Your task to perform on an android device: Search for the new nike air max shoes on Nike. Image 0: 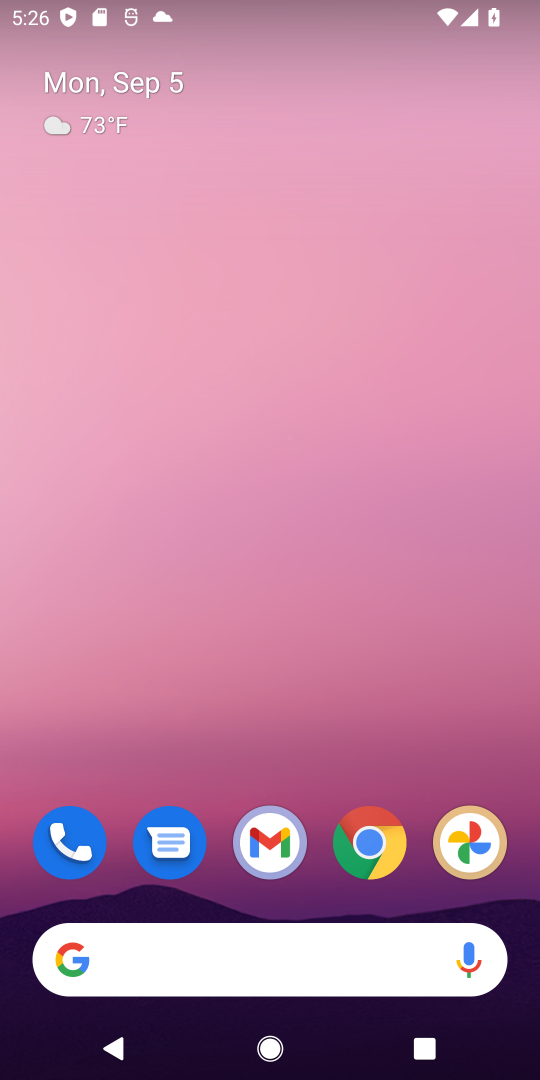
Step 0: click (368, 842)
Your task to perform on an android device: Search for the new nike air max shoes on Nike. Image 1: 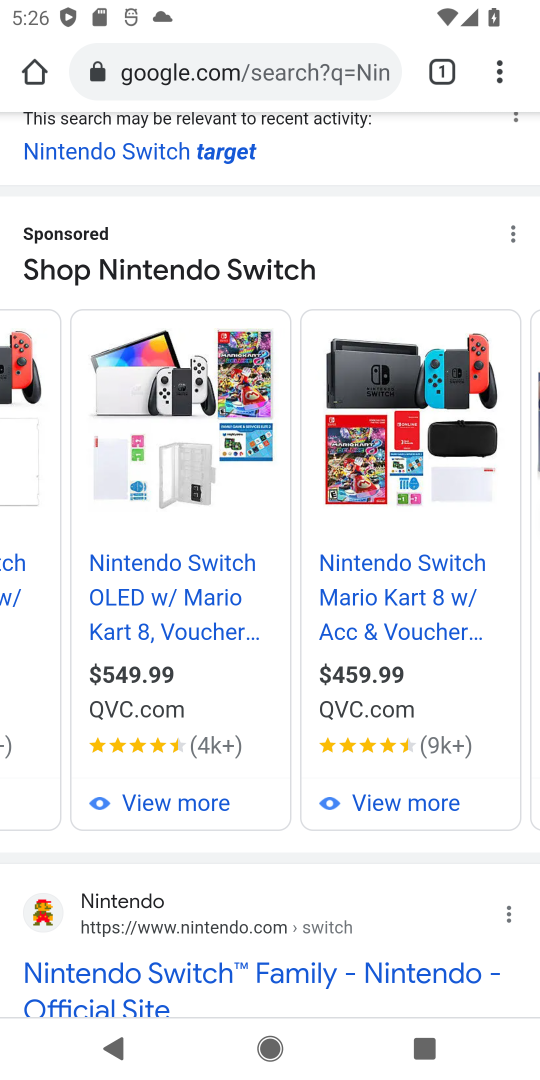
Step 1: click (301, 75)
Your task to perform on an android device: Search for the new nike air max shoes on Nike. Image 2: 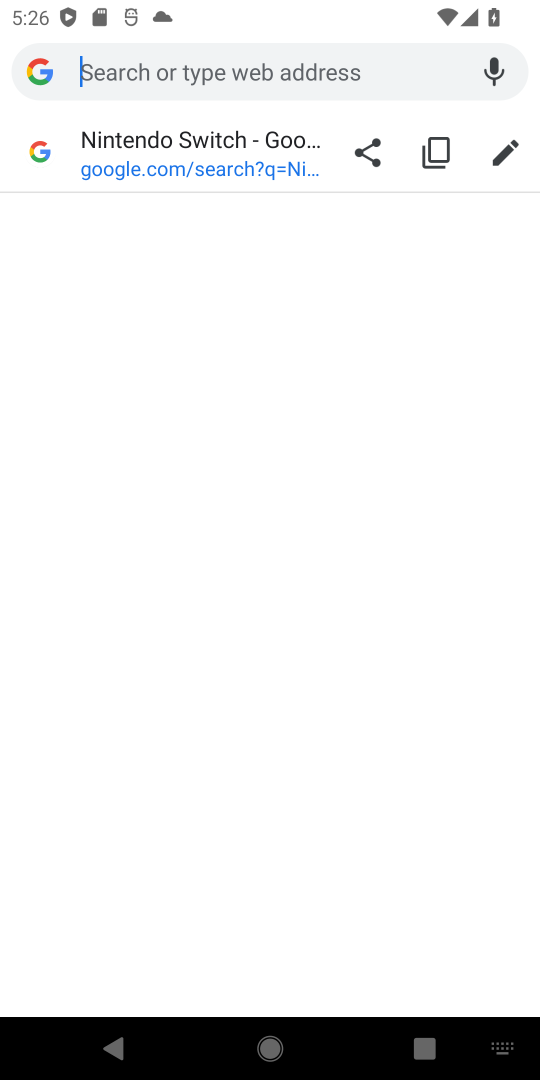
Step 2: type "Nike"
Your task to perform on an android device: Search for the new nike air max shoes on Nike. Image 3: 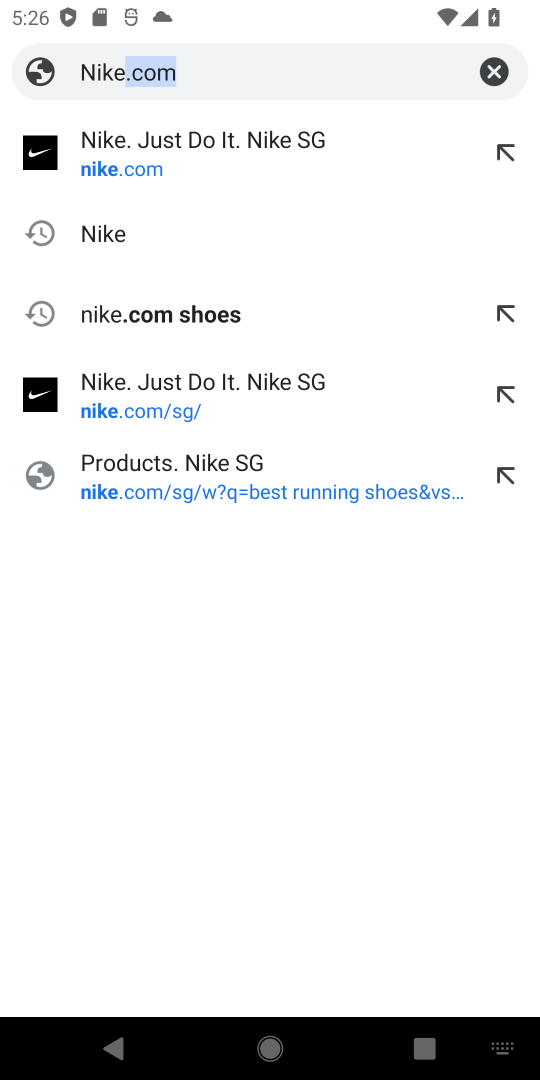
Step 3: click (100, 241)
Your task to perform on an android device: Search for the new nike air max shoes on Nike. Image 4: 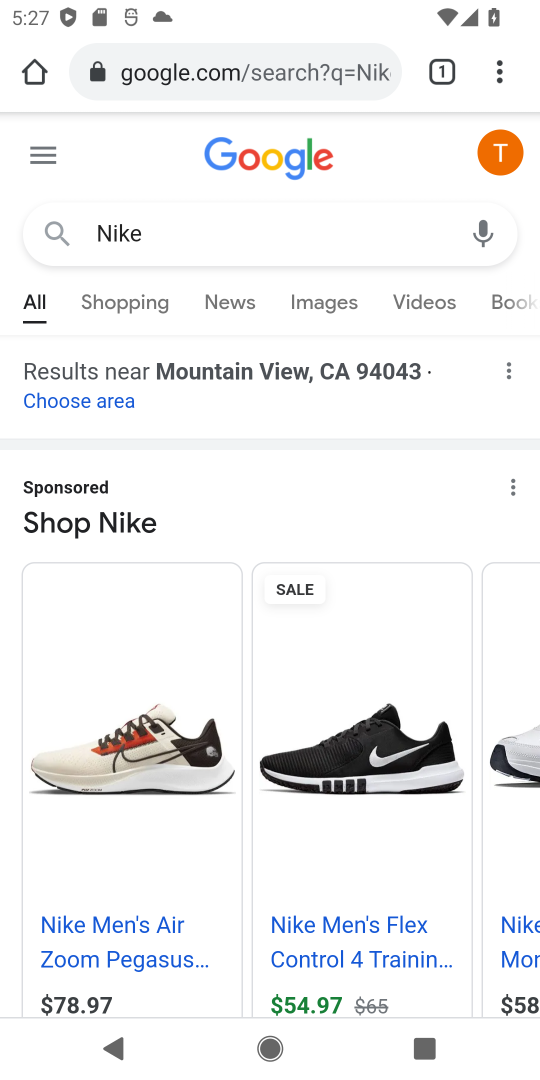
Step 4: drag from (265, 523) to (336, 283)
Your task to perform on an android device: Search for the new nike air max shoes on Nike. Image 5: 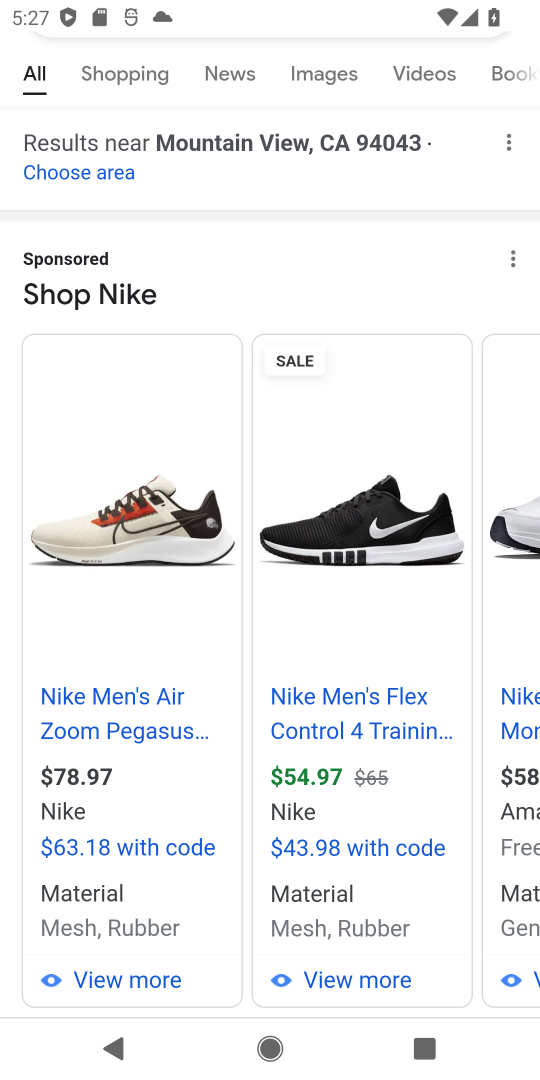
Step 5: drag from (250, 314) to (318, 98)
Your task to perform on an android device: Search for the new nike air max shoes on Nike. Image 6: 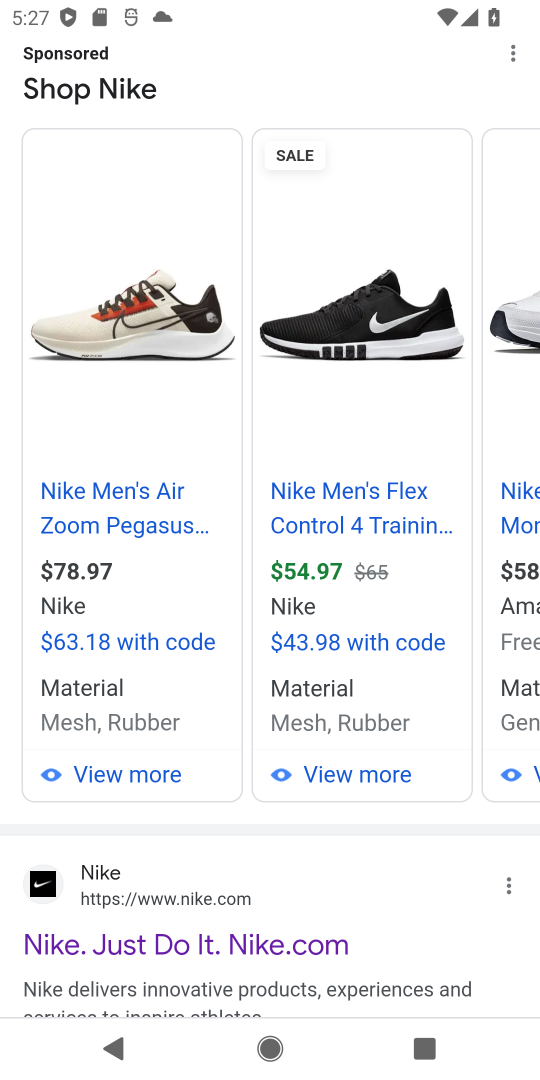
Step 6: click (278, 967)
Your task to perform on an android device: Search for the new nike air max shoes on Nike. Image 7: 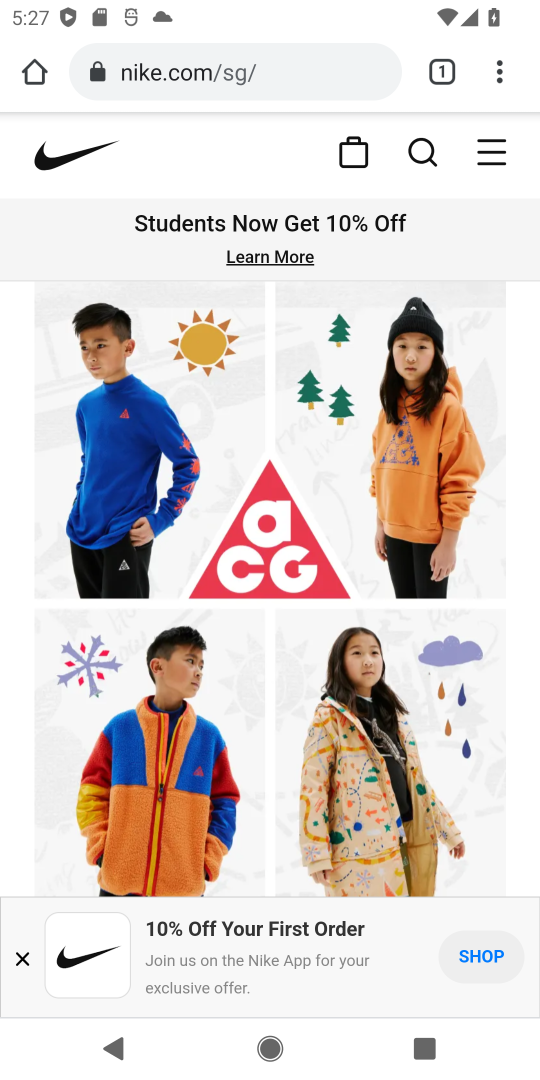
Step 7: click (424, 152)
Your task to perform on an android device: Search for the new nike air max shoes on Nike. Image 8: 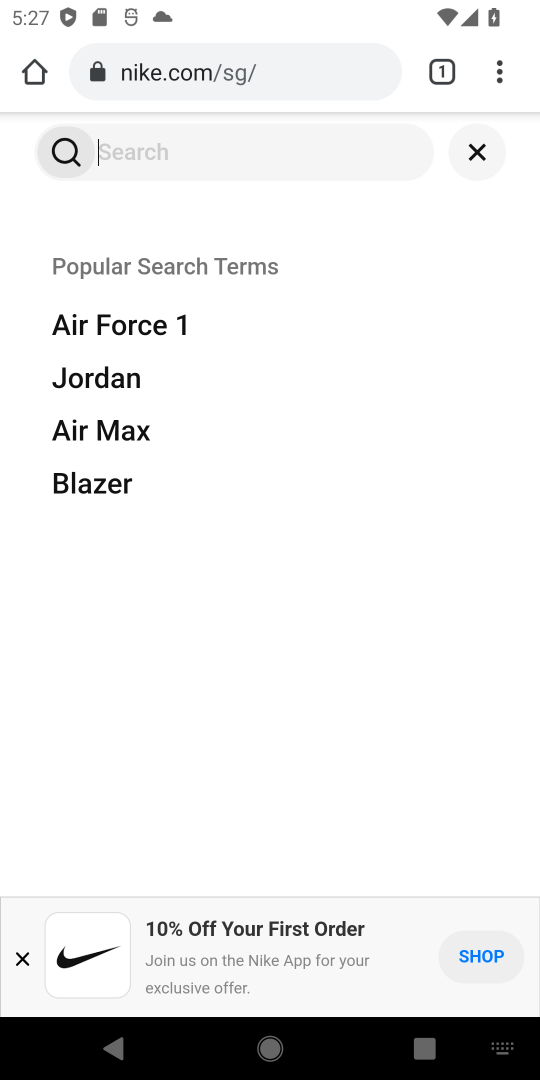
Step 8: click (277, 146)
Your task to perform on an android device: Search for the new nike air max shoes on Nike. Image 9: 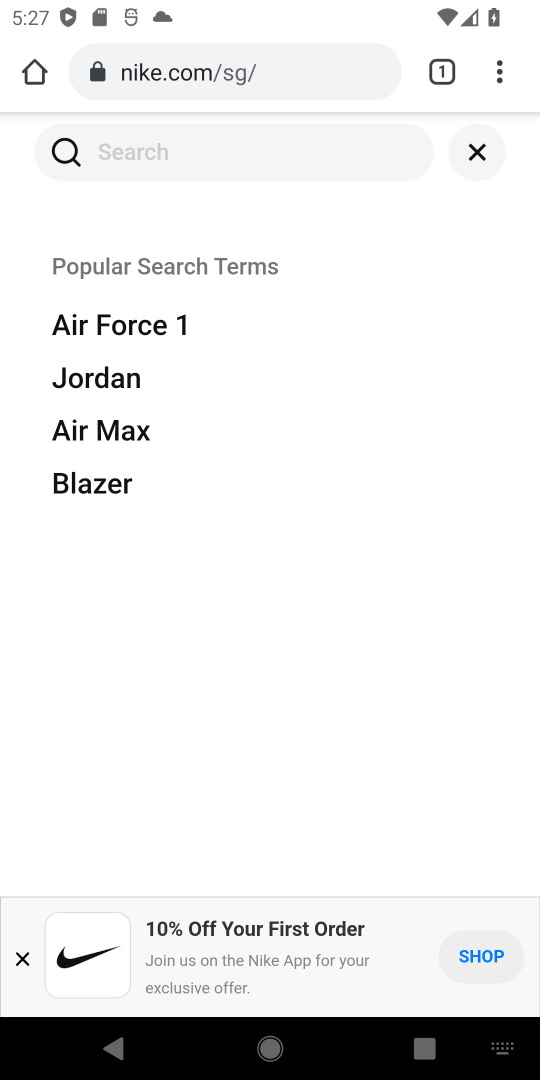
Step 9: type "new nike air max shoes"
Your task to perform on an android device: Search for the new nike air max shoes on Nike. Image 10: 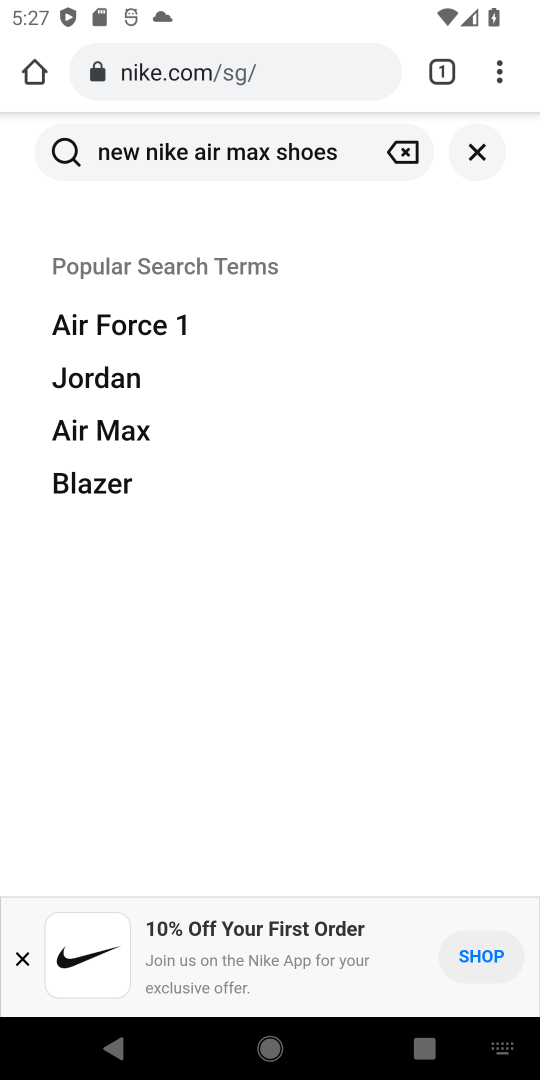
Step 10: click (61, 160)
Your task to perform on an android device: Search for the new nike air max shoes on Nike. Image 11: 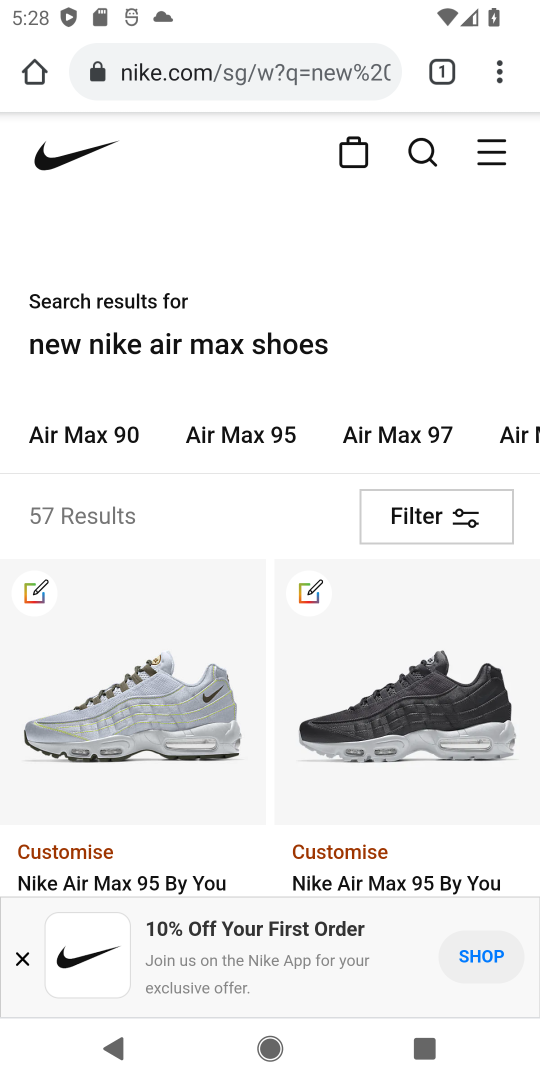
Step 11: drag from (199, 525) to (297, 262)
Your task to perform on an android device: Search for the new nike air max shoes on Nike. Image 12: 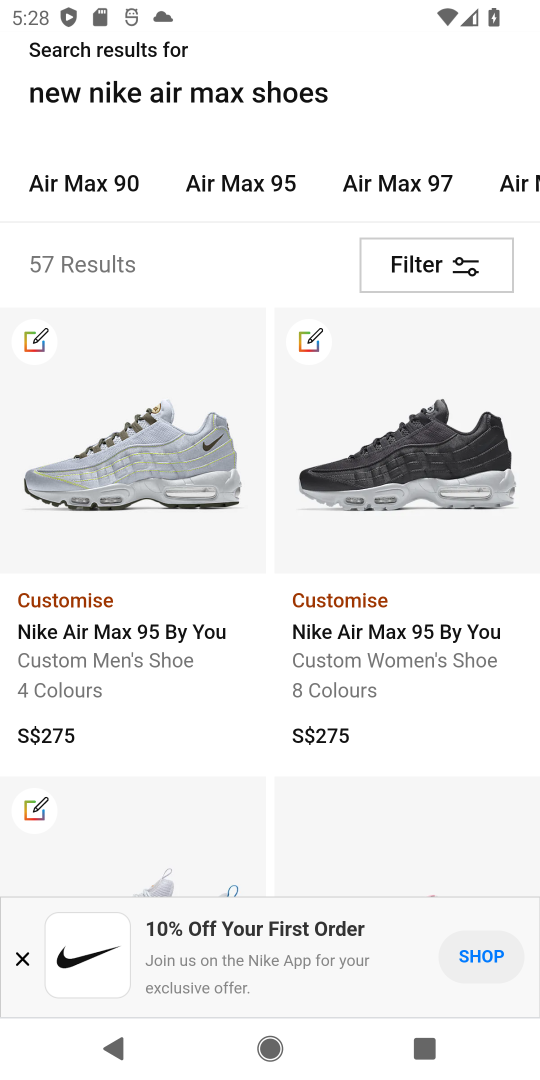
Step 12: drag from (240, 756) to (318, 370)
Your task to perform on an android device: Search for the new nike air max shoes on Nike. Image 13: 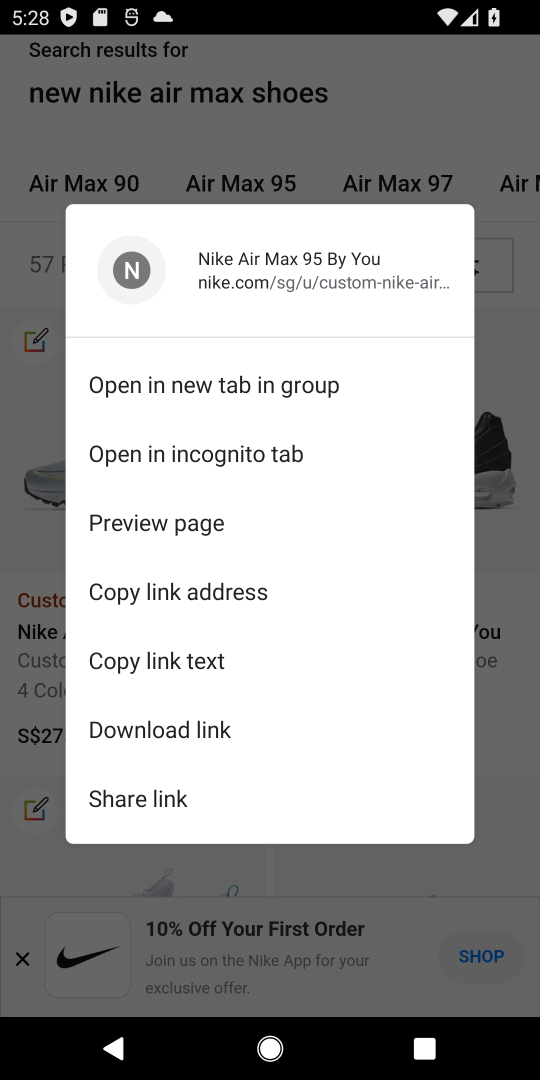
Step 13: click (464, 106)
Your task to perform on an android device: Search for the new nike air max shoes on Nike. Image 14: 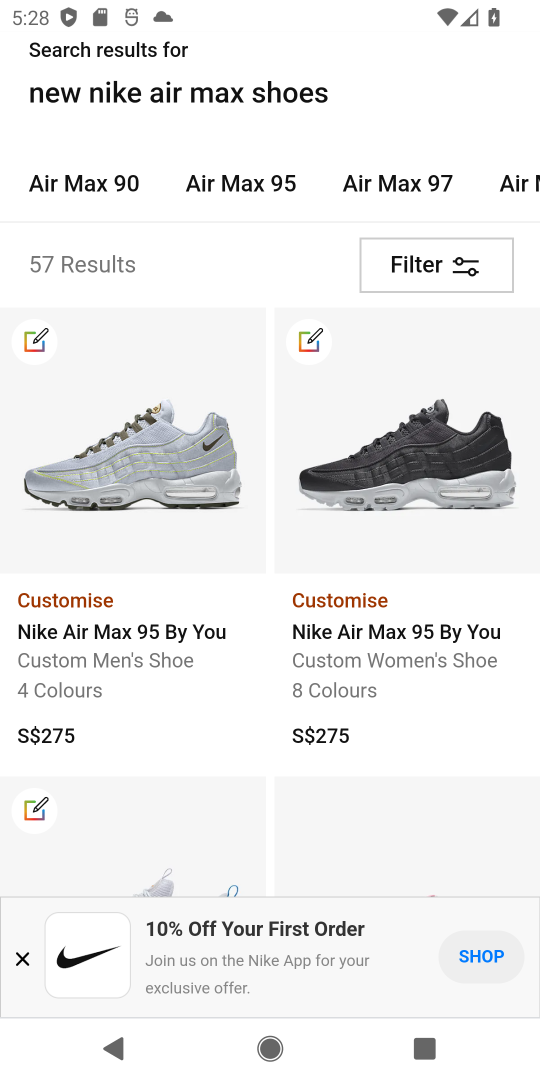
Step 14: task complete